Your task to perform on an android device: Check the weather Image 0: 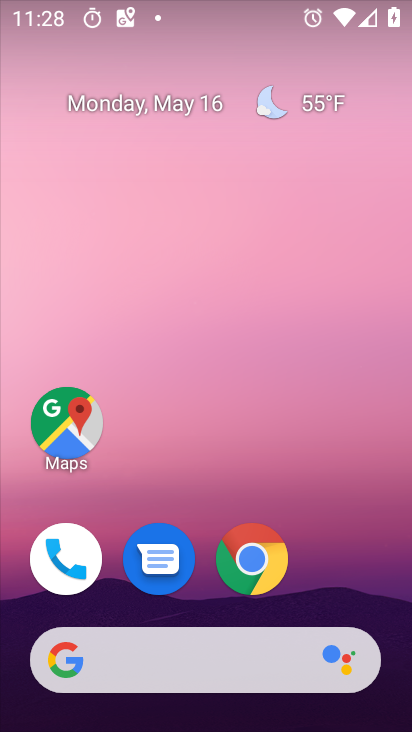
Step 0: click (304, 107)
Your task to perform on an android device: Check the weather Image 1: 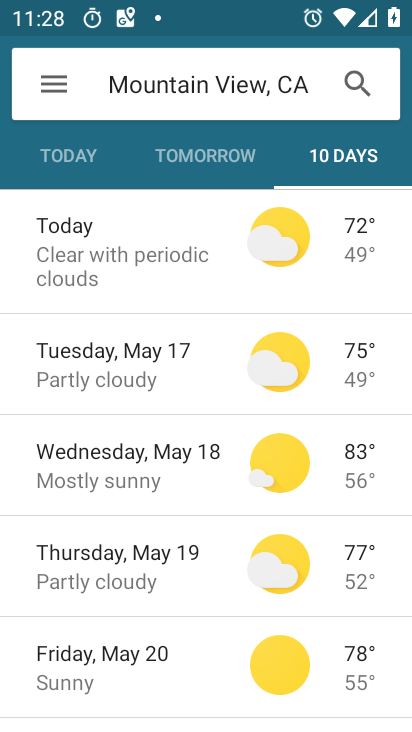
Step 1: click (88, 160)
Your task to perform on an android device: Check the weather Image 2: 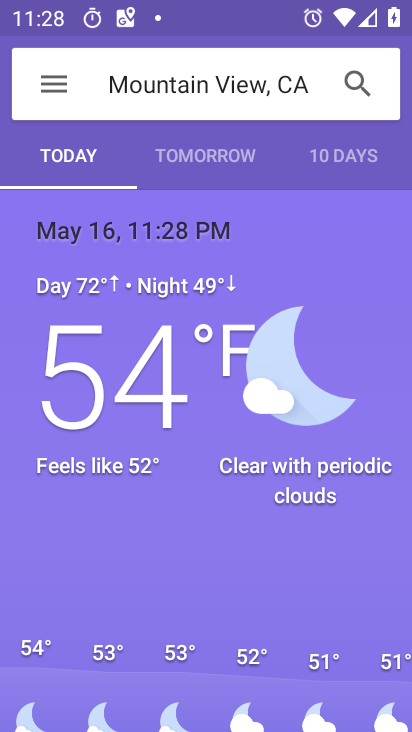
Step 2: task complete